Your task to perform on an android device: change the clock display to digital Image 0: 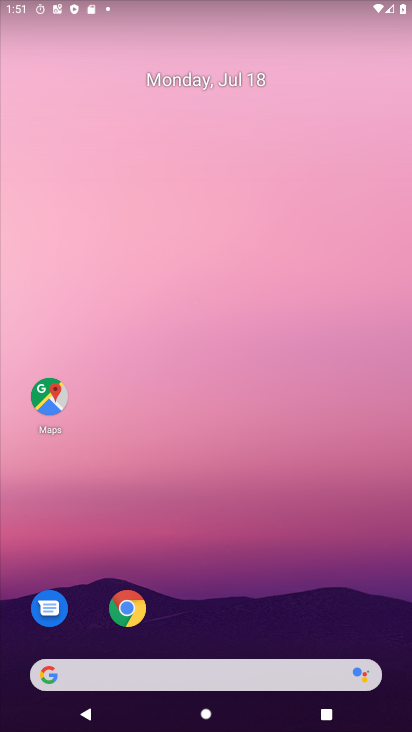
Step 0: drag from (232, 728) to (228, 100)
Your task to perform on an android device: change the clock display to digital Image 1: 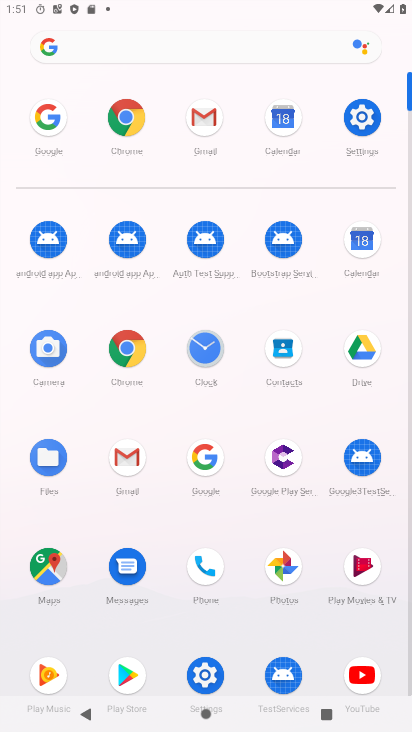
Step 1: click (197, 351)
Your task to perform on an android device: change the clock display to digital Image 2: 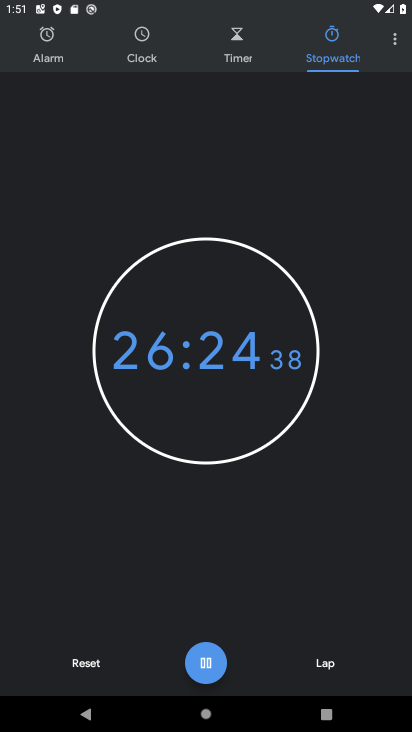
Step 2: click (395, 41)
Your task to perform on an android device: change the clock display to digital Image 3: 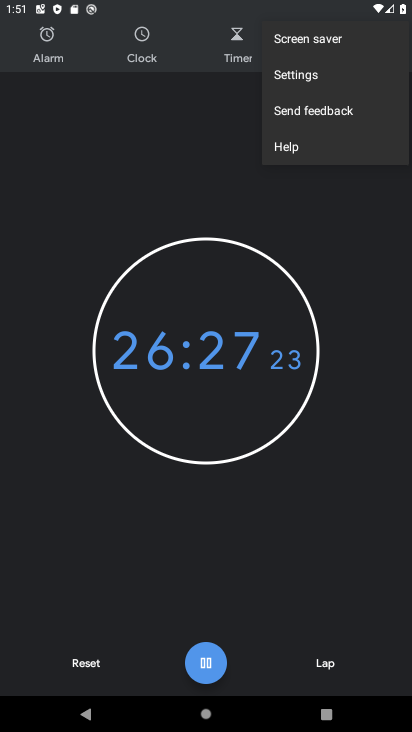
Step 3: click (287, 75)
Your task to perform on an android device: change the clock display to digital Image 4: 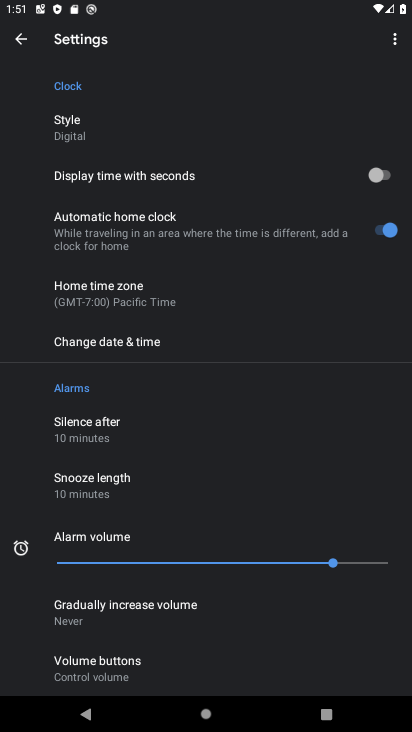
Step 4: task complete